Your task to perform on an android device: Do I have any events this weekend? Image 0: 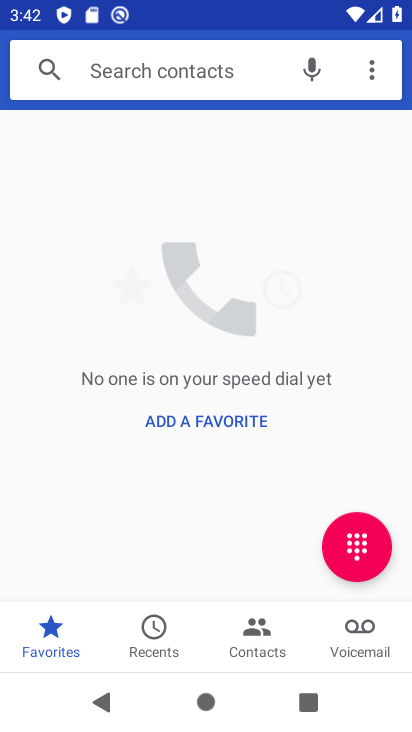
Step 0: press home button
Your task to perform on an android device: Do I have any events this weekend? Image 1: 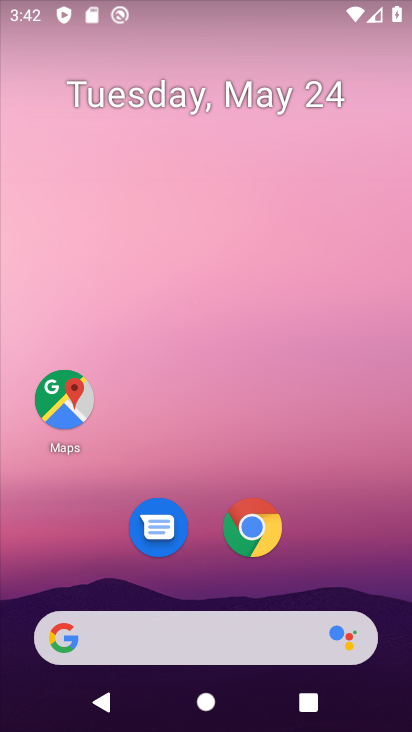
Step 1: drag from (223, 677) to (216, 86)
Your task to perform on an android device: Do I have any events this weekend? Image 2: 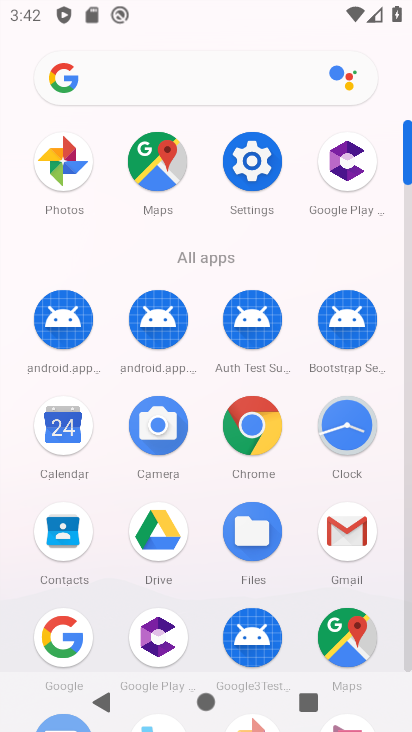
Step 2: click (76, 422)
Your task to perform on an android device: Do I have any events this weekend? Image 3: 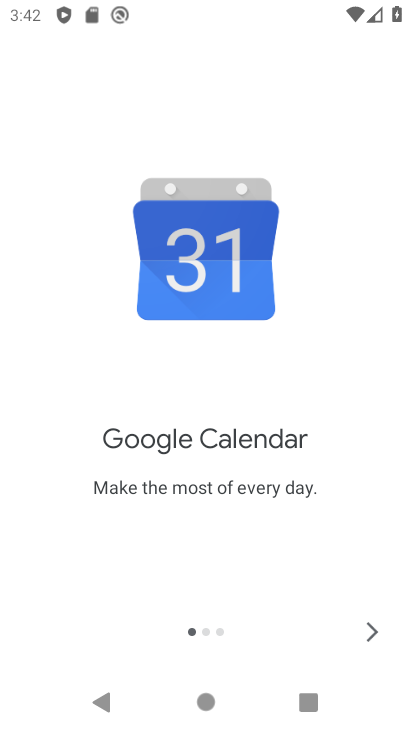
Step 3: click (353, 638)
Your task to perform on an android device: Do I have any events this weekend? Image 4: 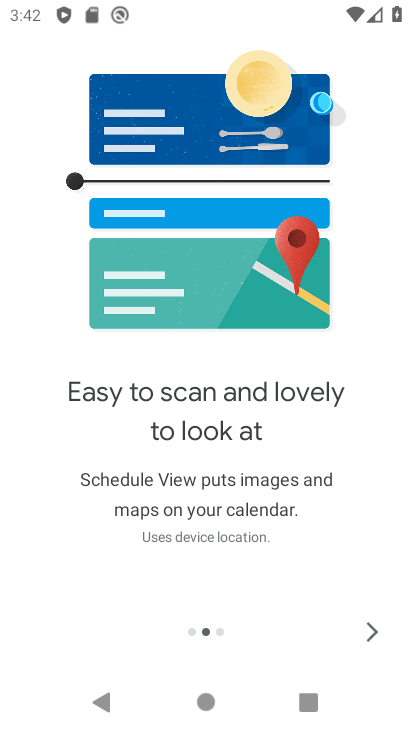
Step 4: click (358, 623)
Your task to perform on an android device: Do I have any events this weekend? Image 5: 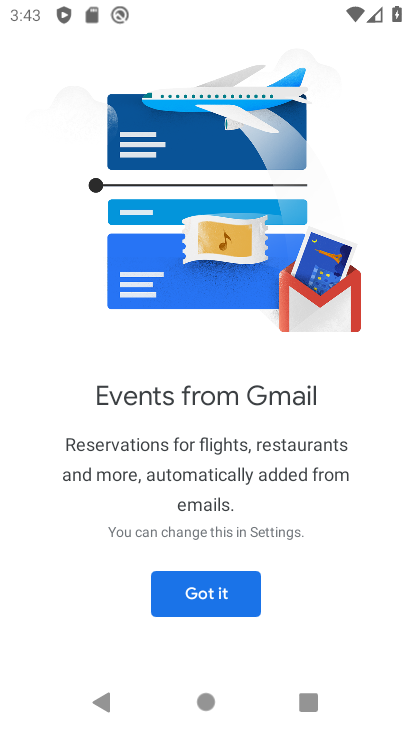
Step 5: click (208, 593)
Your task to perform on an android device: Do I have any events this weekend? Image 6: 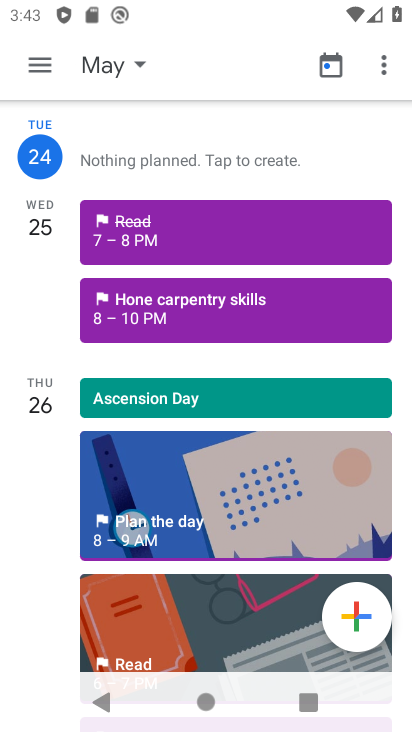
Step 6: task complete